Your task to perform on an android device: Search for Italian restaurants on Maps Image 0: 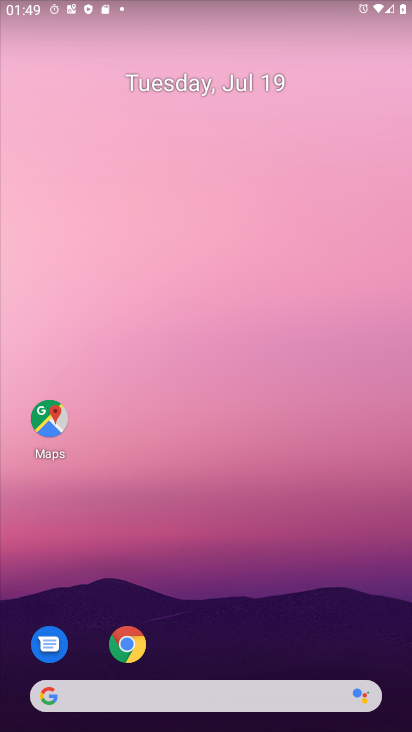
Step 0: drag from (191, 730) to (214, 182)
Your task to perform on an android device: Search for Italian restaurants on Maps Image 1: 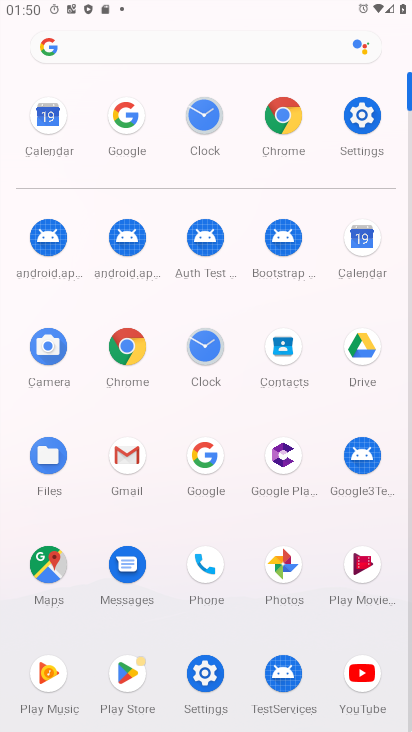
Step 1: click (45, 565)
Your task to perform on an android device: Search for Italian restaurants on Maps Image 2: 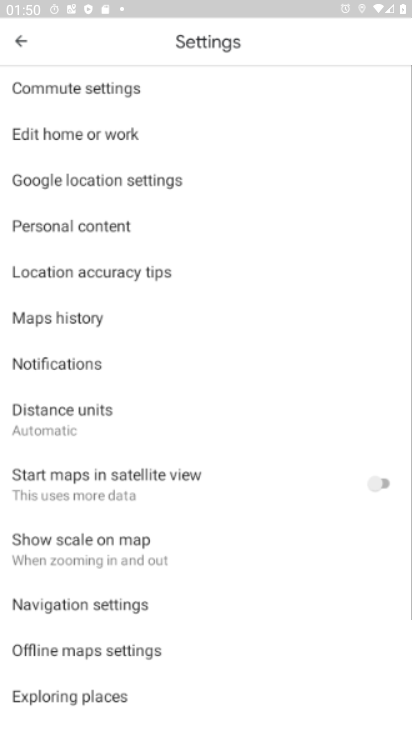
Step 2: click (24, 39)
Your task to perform on an android device: Search for Italian restaurants on Maps Image 3: 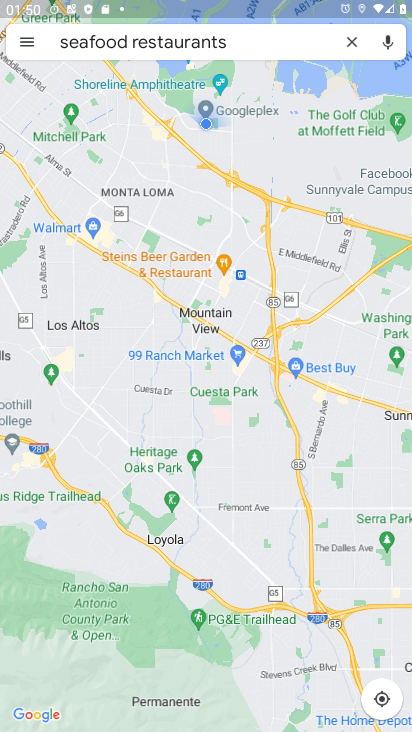
Step 3: click (353, 39)
Your task to perform on an android device: Search for Italian restaurants on Maps Image 4: 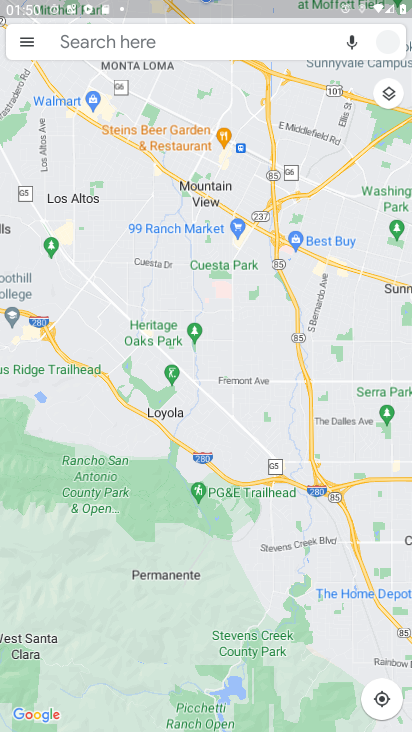
Step 4: click (204, 50)
Your task to perform on an android device: Search for Italian restaurants on Maps Image 5: 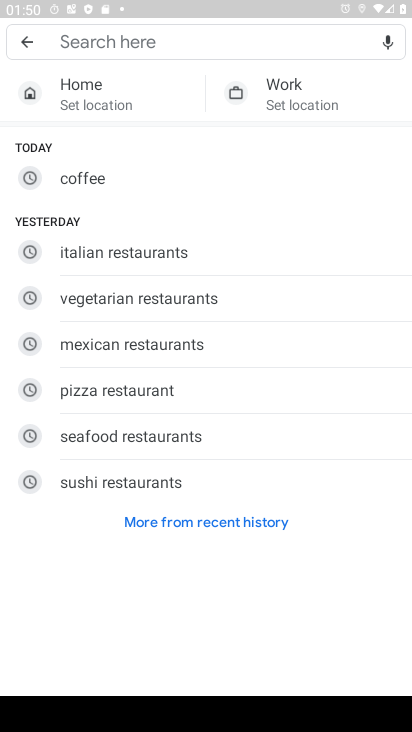
Step 5: type "Italiaan restaurants"
Your task to perform on an android device: Search for Italian restaurants on Maps Image 6: 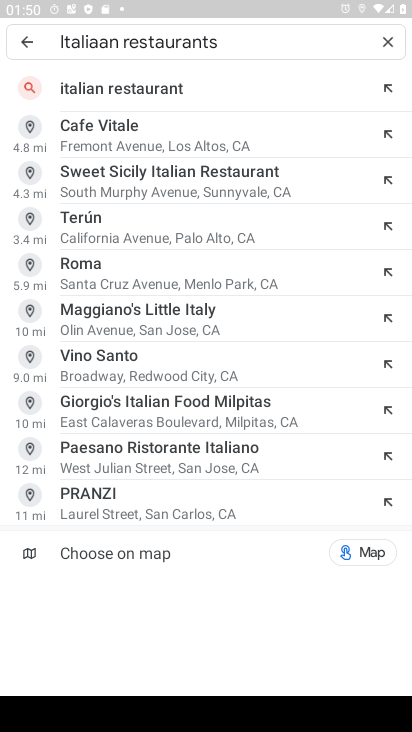
Step 6: click (134, 86)
Your task to perform on an android device: Search for Italian restaurants on Maps Image 7: 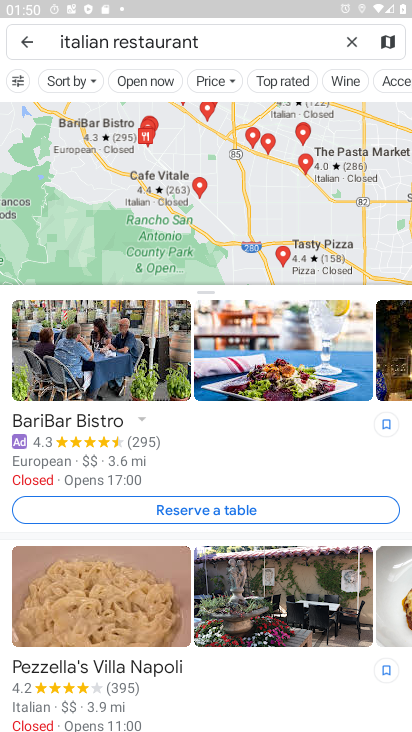
Step 7: task complete